Your task to perform on an android device: change your default location settings in chrome Image 0: 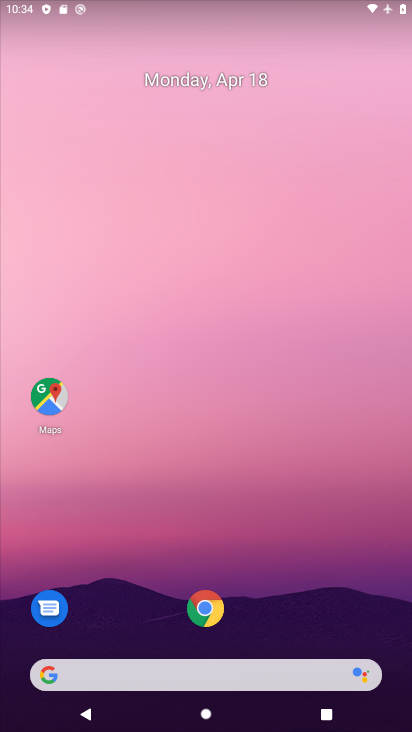
Step 0: click (201, 622)
Your task to perform on an android device: change your default location settings in chrome Image 1: 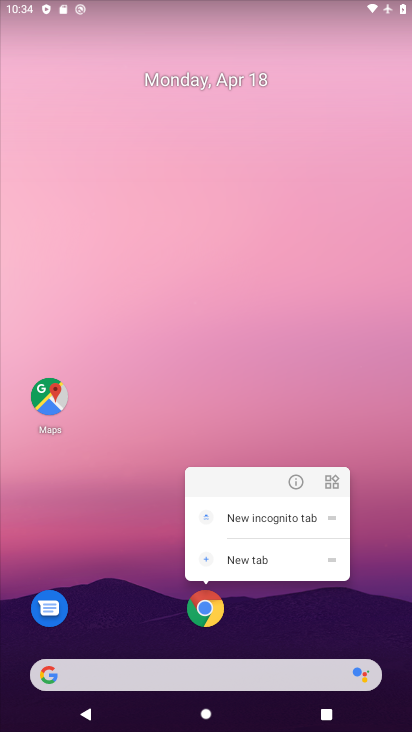
Step 1: click (201, 622)
Your task to perform on an android device: change your default location settings in chrome Image 2: 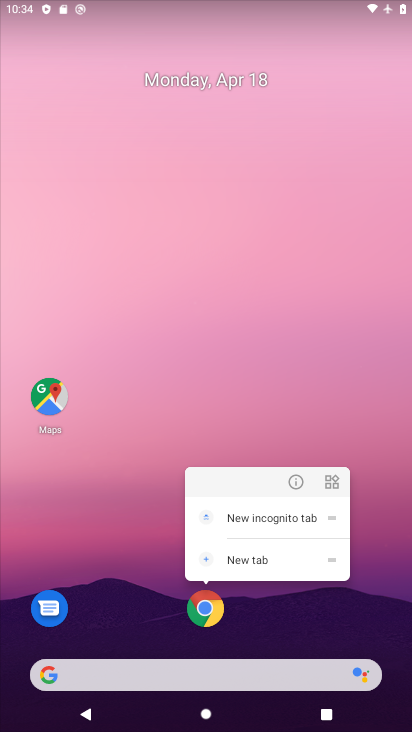
Step 2: click (211, 614)
Your task to perform on an android device: change your default location settings in chrome Image 3: 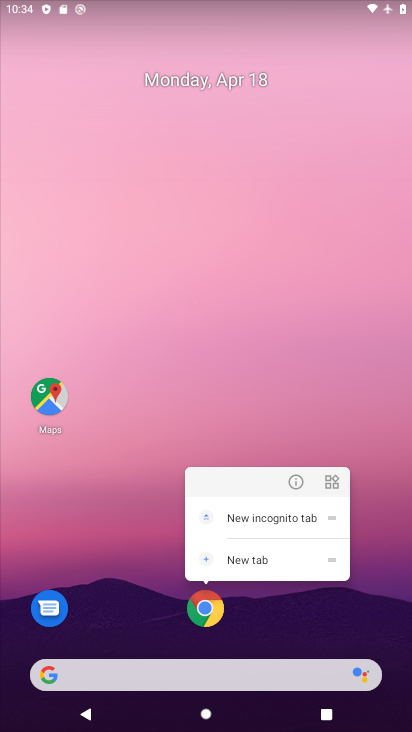
Step 3: click (198, 609)
Your task to perform on an android device: change your default location settings in chrome Image 4: 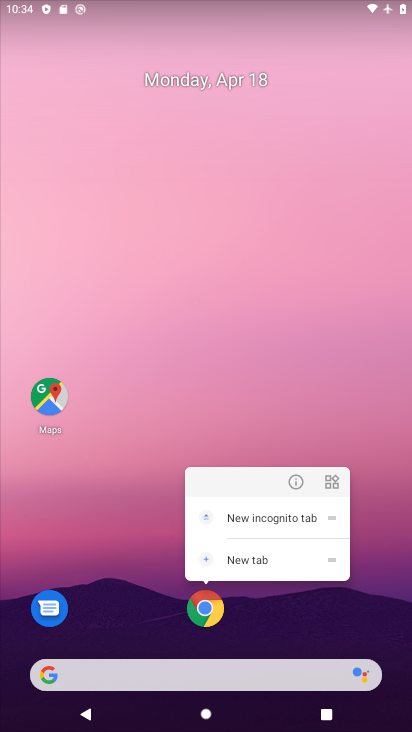
Step 4: click (203, 614)
Your task to perform on an android device: change your default location settings in chrome Image 5: 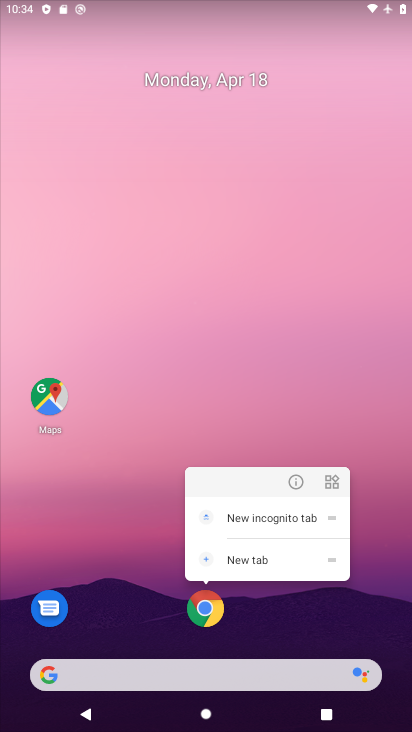
Step 5: click (203, 614)
Your task to perform on an android device: change your default location settings in chrome Image 6: 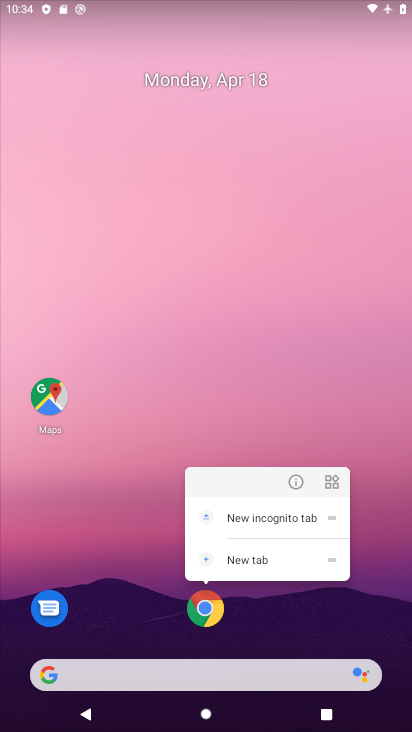
Step 6: click (203, 614)
Your task to perform on an android device: change your default location settings in chrome Image 7: 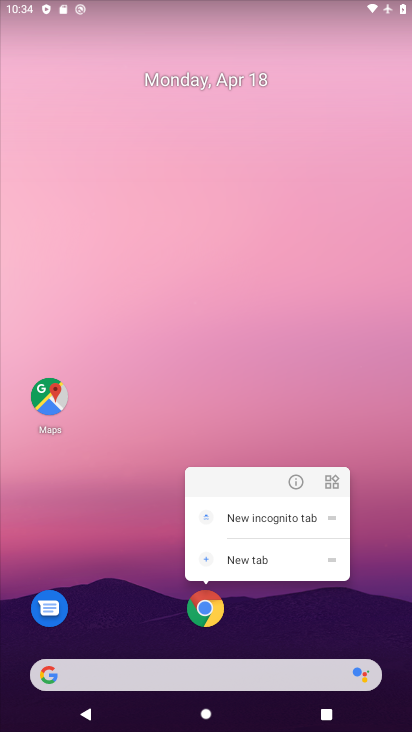
Step 7: click (203, 614)
Your task to perform on an android device: change your default location settings in chrome Image 8: 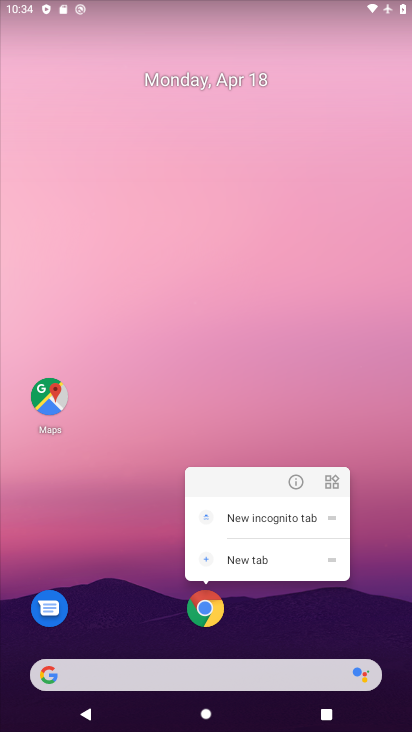
Step 8: click (203, 614)
Your task to perform on an android device: change your default location settings in chrome Image 9: 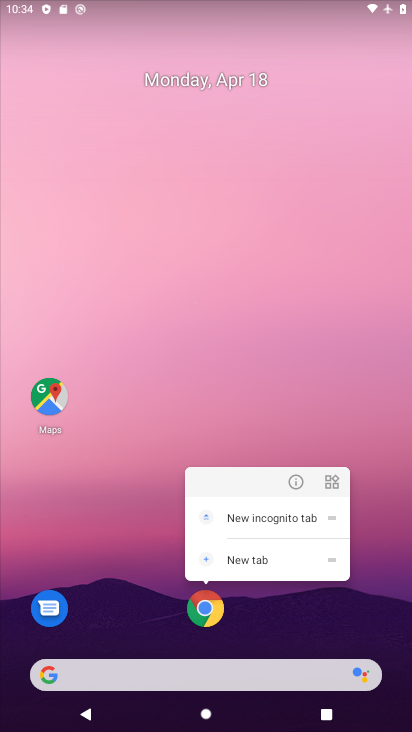
Step 9: click (203, 614)
Your task to perform on an android device: change your default location settings in chrome Image 10: 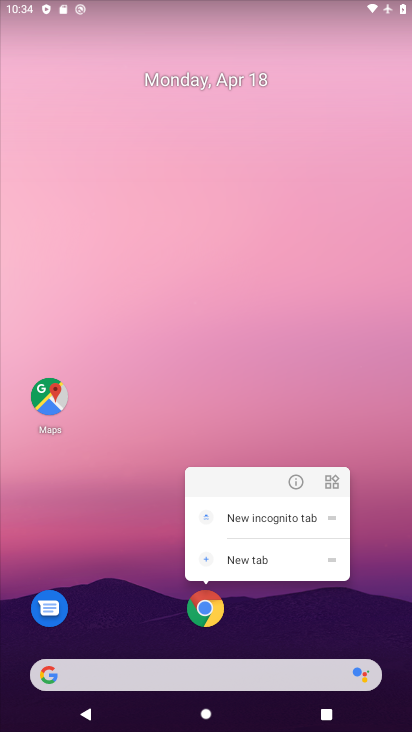
Step 10: click (203, 614)
Your task to perform on an android device: change your default location settings in chrome Image 11: 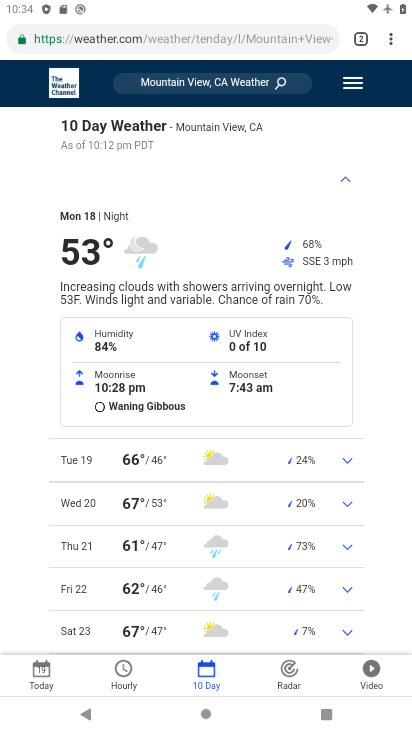
Step 11: drag from (391, 37) to (262, 516)
Your task to perform on an android device: change your default location settings in chrome Image 12: 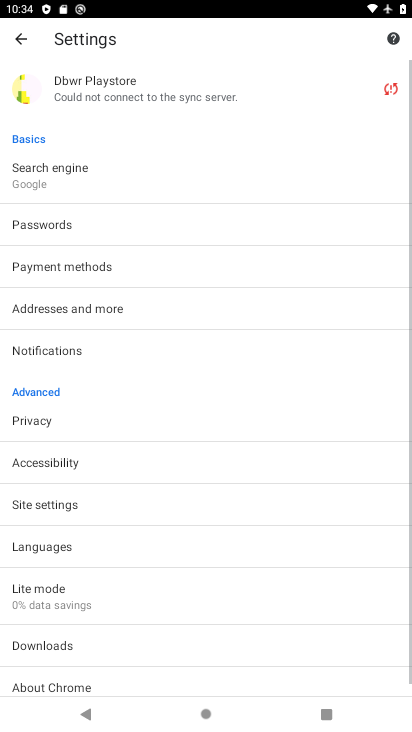
Step 12: click (41, 501)
Your task to perform on an android device: change your default location settings in chrome Image 13: 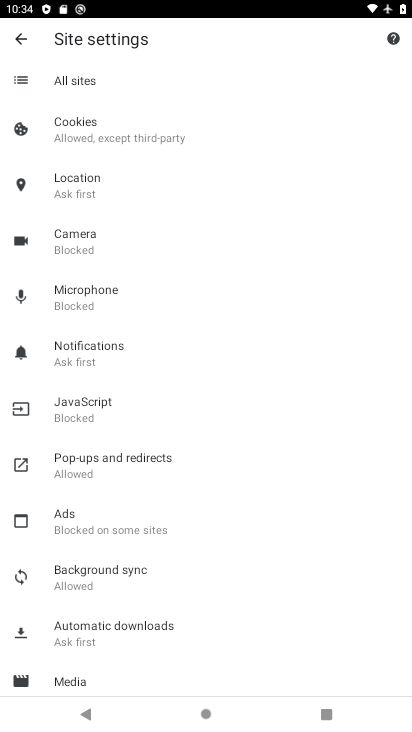
Step 13: click (77, 179)
Your task to perform on an android device: change your default location settings in chrome Image 14: 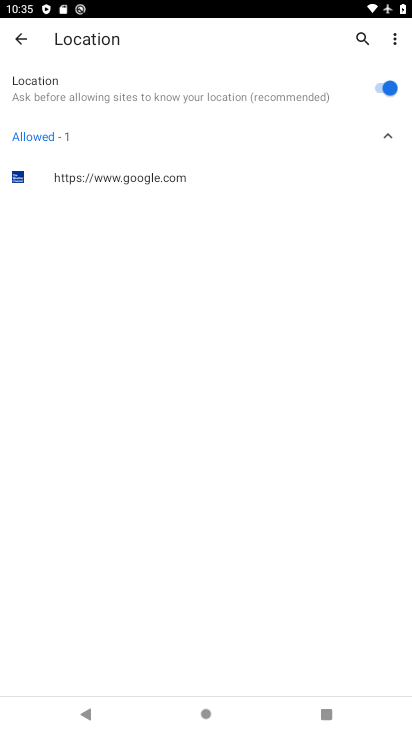
Step 14: click (386, 89)
Your task to perform on an android device: change your default location settings in chrome Image 15: 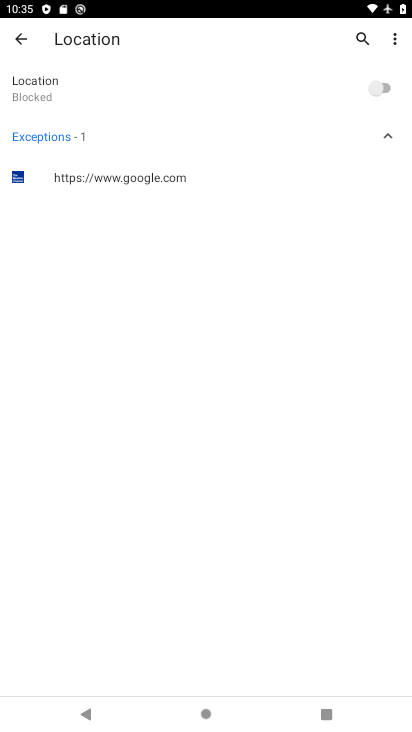
Step 15: task complete